Your task to perform on an android device: Open Yahoo.com Image 0: 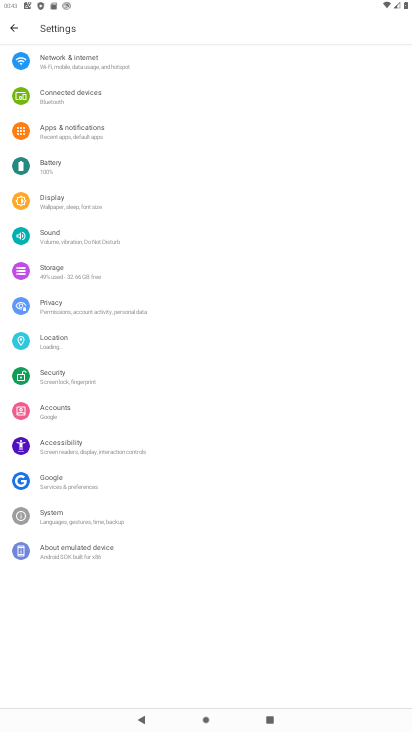
Step 0: press home button
Your task to perform on an android device: Open Yahoo.com Image 1: 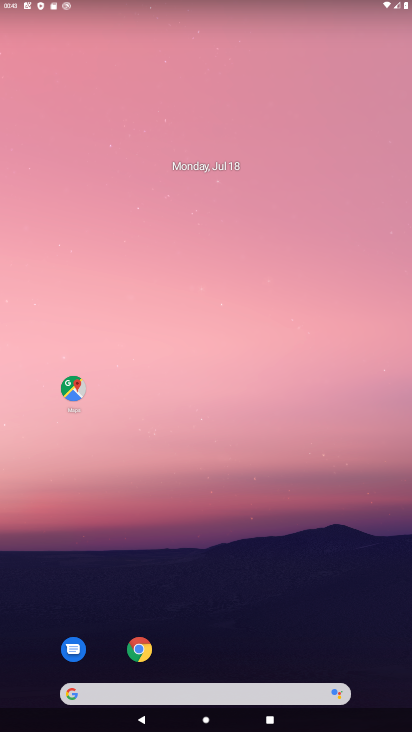
Step 1: click (136, 656)
Your task to perform on an android device: Open Yahoo.com Image 2: 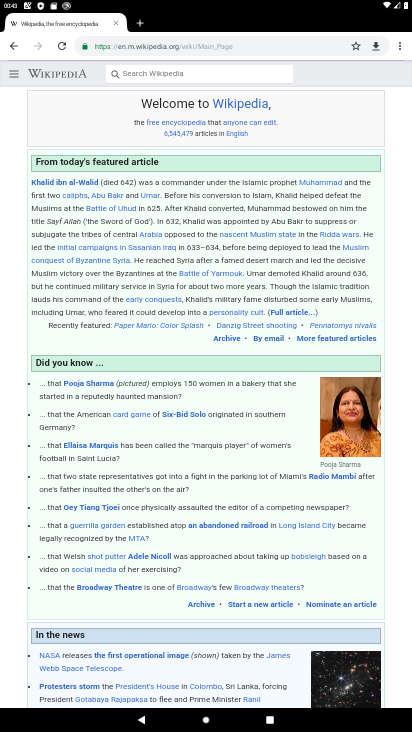
Step 2: click (178, 40)
Your task to perform on an android device: Open Yahoo.com Image 3: 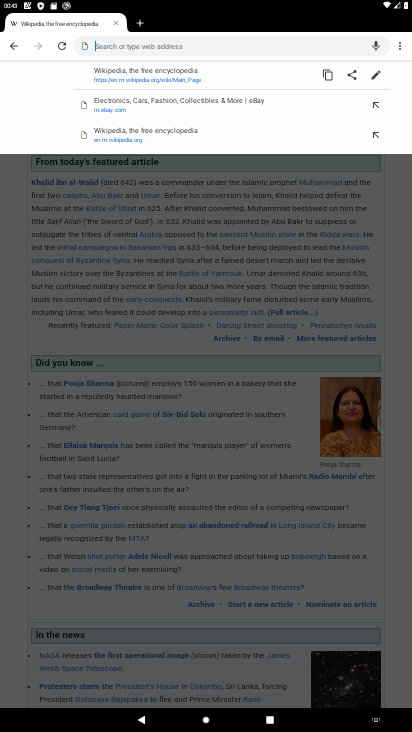
Step 3: type "www.yahoo.com"
Your task to perform on an android device: Open Yahoo.com Image 4: 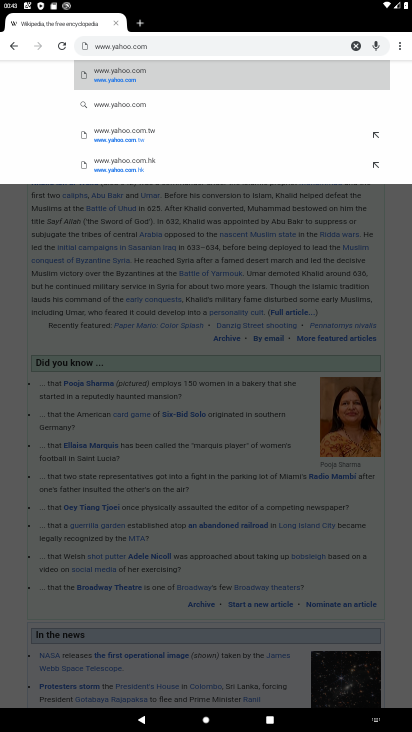
Step 4: click (133, 69)
Your task to perform on an android device: Open Yahoo.com Image 5: 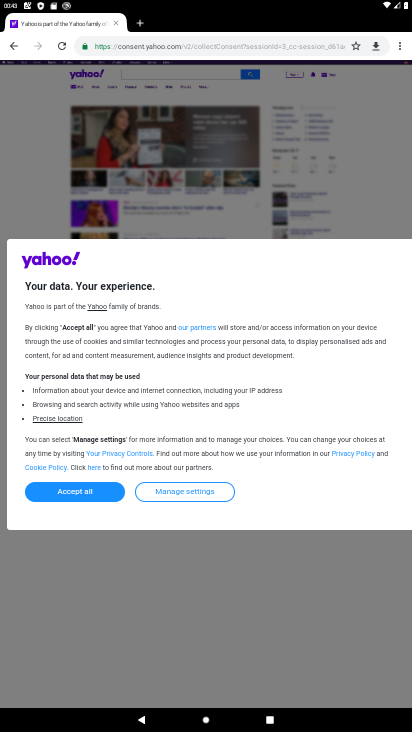
Step 5: task complete